Your task to perform on an android device: toggle notifications settings in the gmail app Image 0: 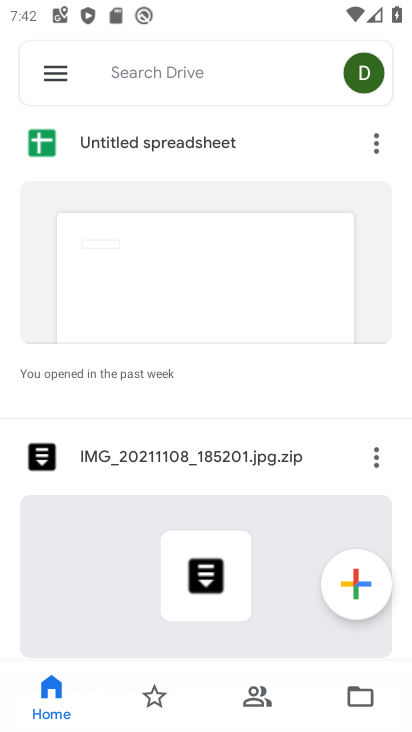
Step 0: press home button
Your task to perform on an android device: toggle notifications settings in the gmail app Image 1: 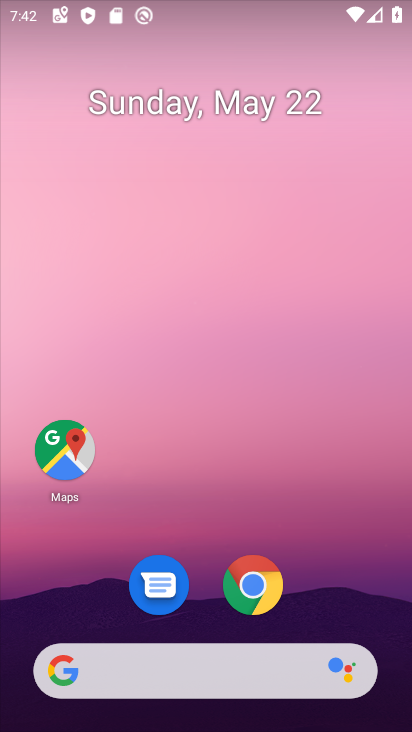
Step 1: drag from (183, 509) to (208, 56)
Your task to perform on an android device: toggle notifications settings in the gmail app Image 2: 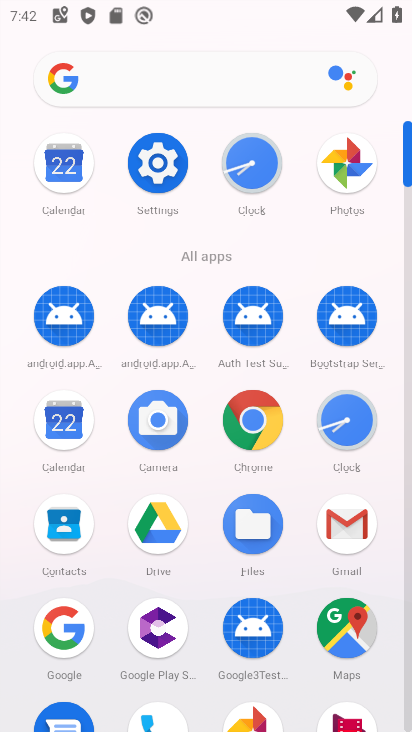
Step 2: click (348, 520)
Your task to perform on an android device: toggle notifications settings in the gmail app Image 3: 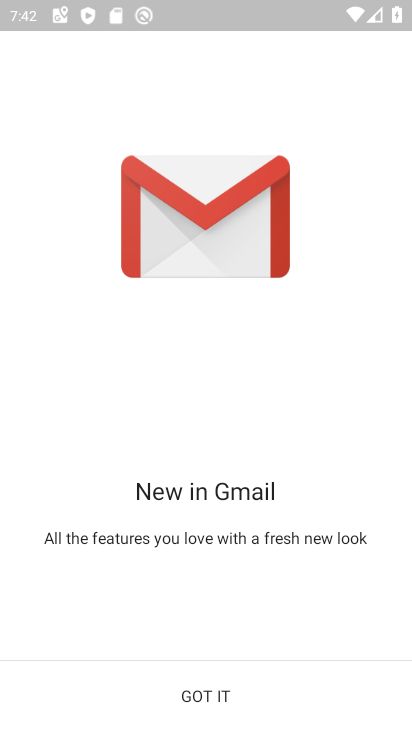
Step 3: click (225, 681)
Your task to perform on an android device: toggle notifications settings in the gmail app Image 4: 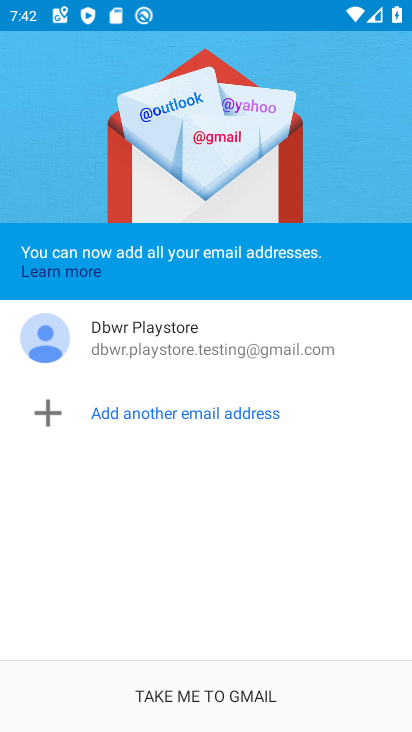
Step 4: click (225, 683)
Your task to perform on an android device: toggle notifications settings in the gmail app Image 5: 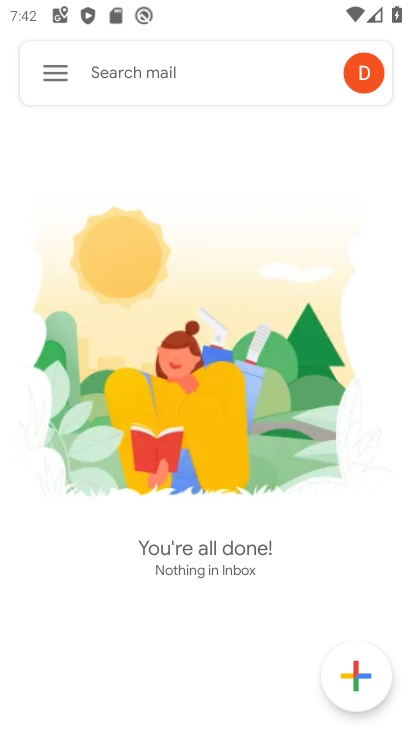
Step 5: click (59, 68)
Your task to perform on an android device: toggle notifications settings in the gmail app Image 6: 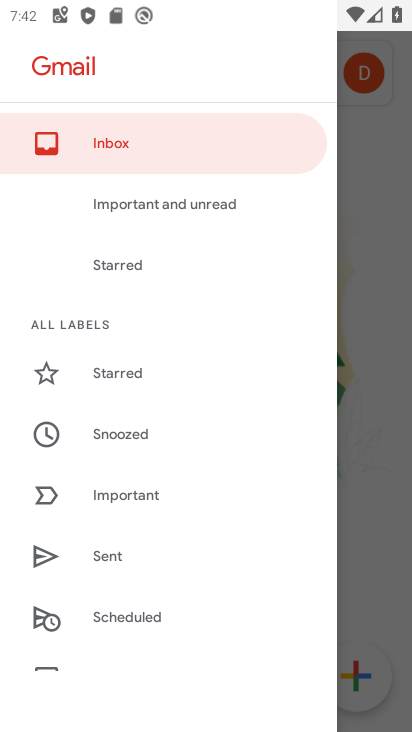
Step 6: drag from (179, 511) to (219, 222)
Your task to perform on an android device: toggle notifications settings in the gmail app Image 7: 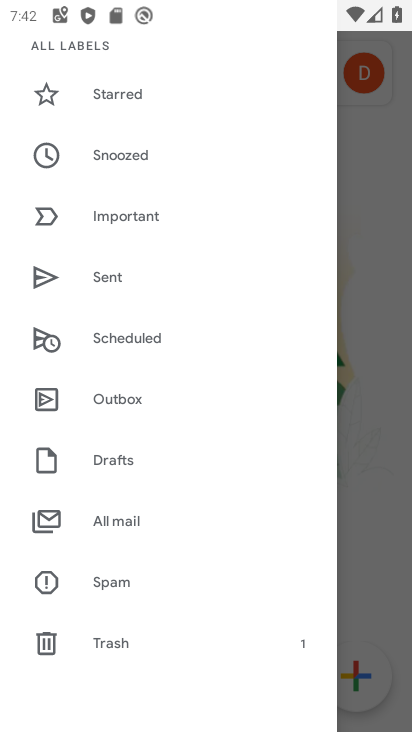
Step 7: drag from (210, 449) to (181, 98)
Your task to perform on an android device: toggle notifications settings in the gmail app Image 8: 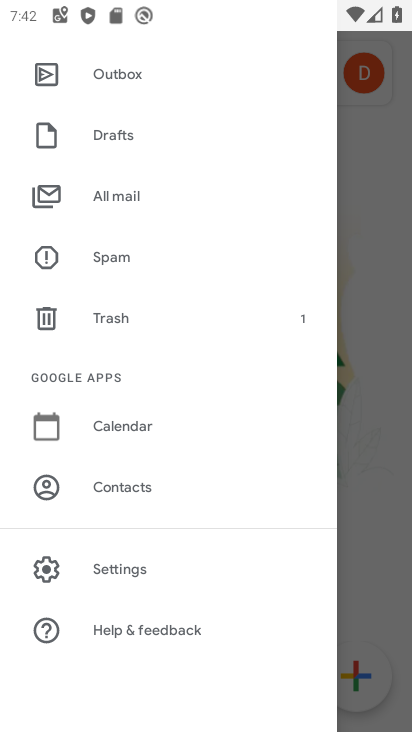
Step 8: click (125, 557)
Your task to perform on an android device: toggle notifications settings in the gmail app Image 9: 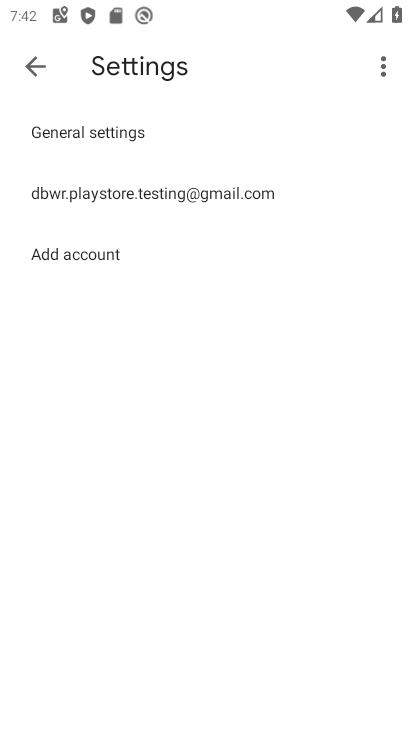
Step 9: click (220, 186)
Your task to perform on an android device: toggle notifications settings in the gmail app Image 10: 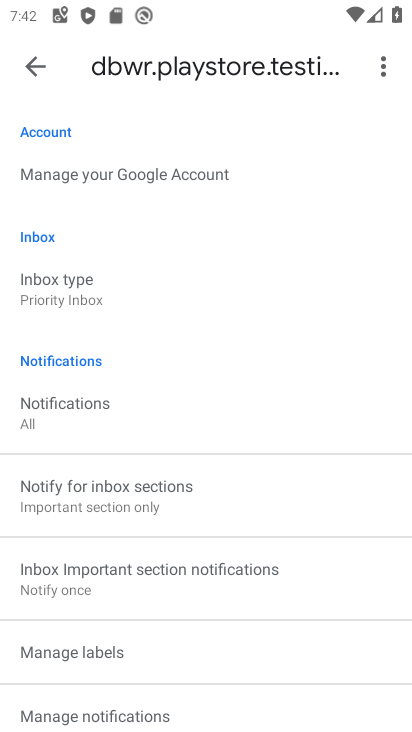
Step 10: drag from (214, 591) to (236, 336)
Your task to perform on an android device: toggle notifications settings in the gmail app Image 11: 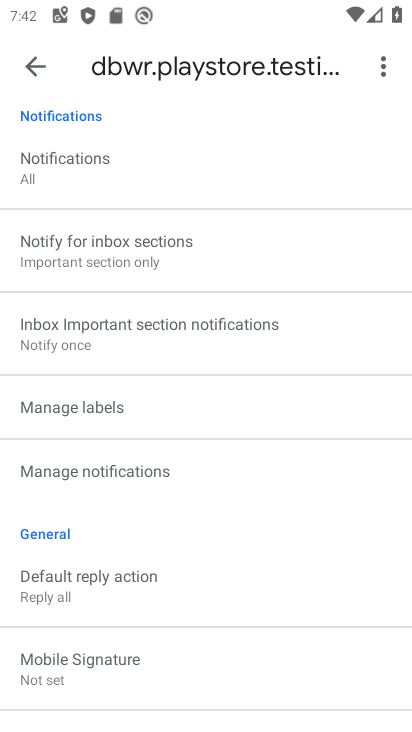
Step 11: click (209, 471)
Your task to perform on an android device: toggle notifications settings in the gmail app Image 12: 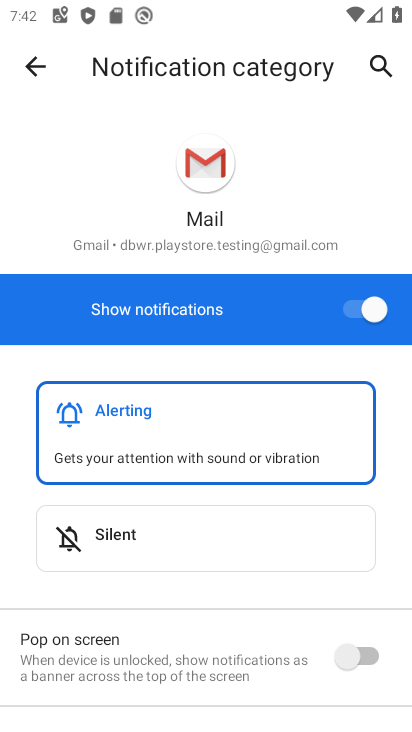
Step 12: click (360, 304)
Your task to perform on an android device: toggle notifications settings in the gmail app Image 13: 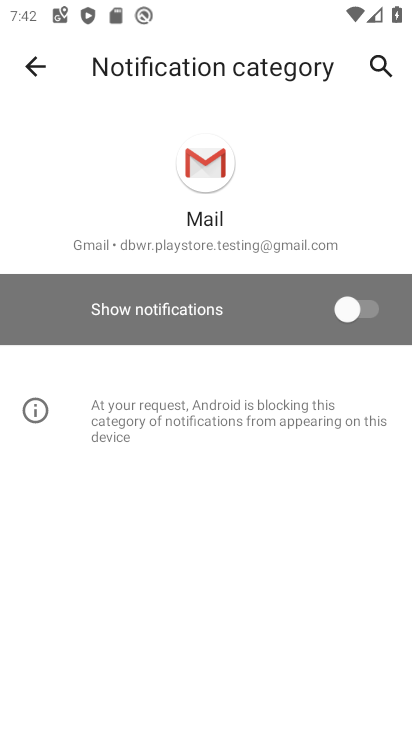
Step 13: task complete